Your task to perform on an android device: Open maps Image 0: 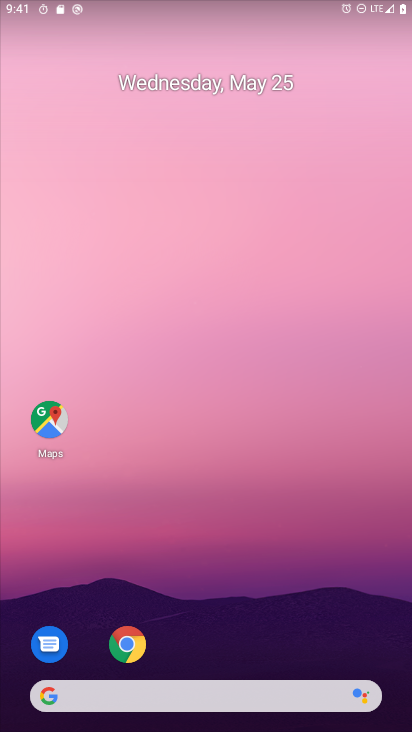
Step 0: drag from (297, 640) to (143, 44)
Your task to perform on an android device: Open maps Image 1: 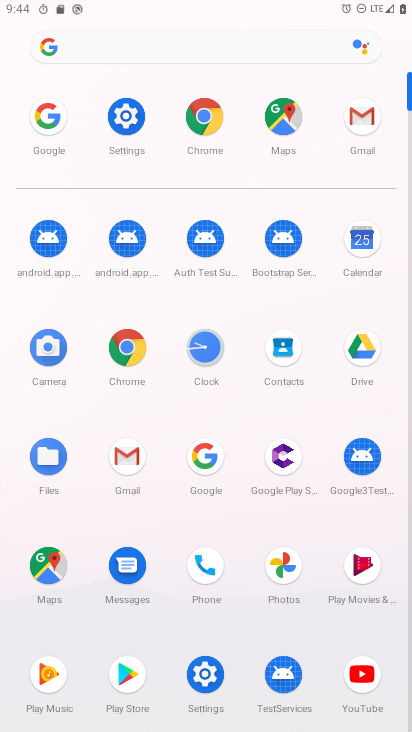
Step 1: click (57, 567)
Your task to perform on an android device: Open maps Image 2: 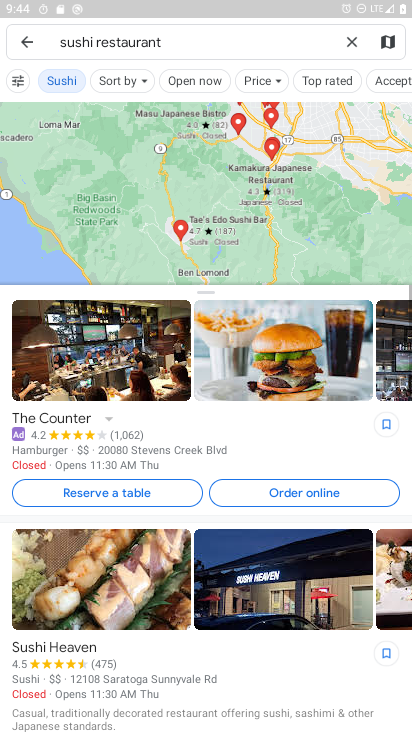
Step 2: click (346, 43)
Your task to perform on an android device: Open maps Image 3: 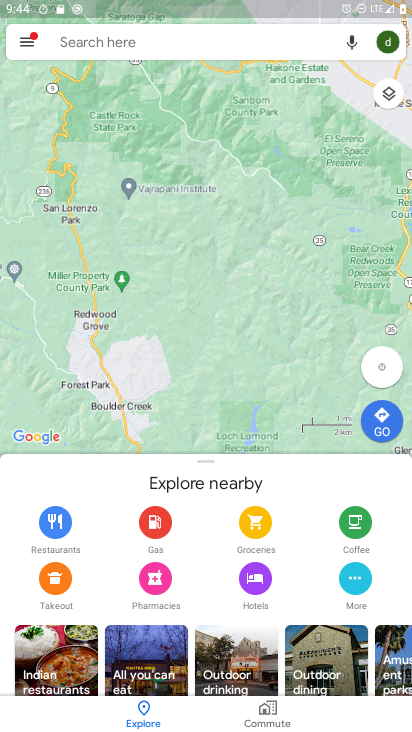
Step 3: task complete